Your task to perform on an android device: turn on location history Image 0: 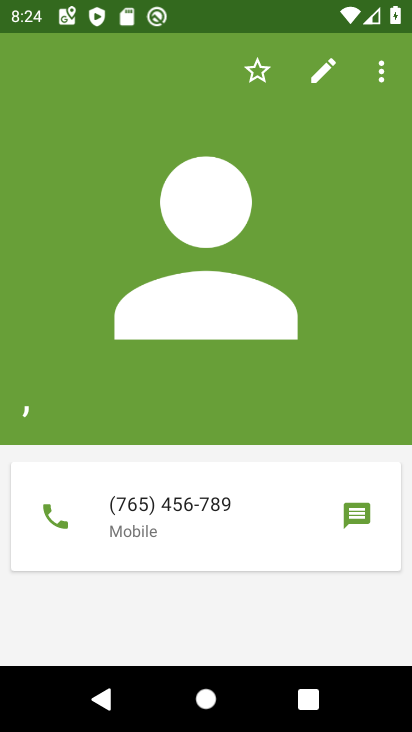
Step 0: press home button
Your task to perform on an android device: turn on location history Image 1: 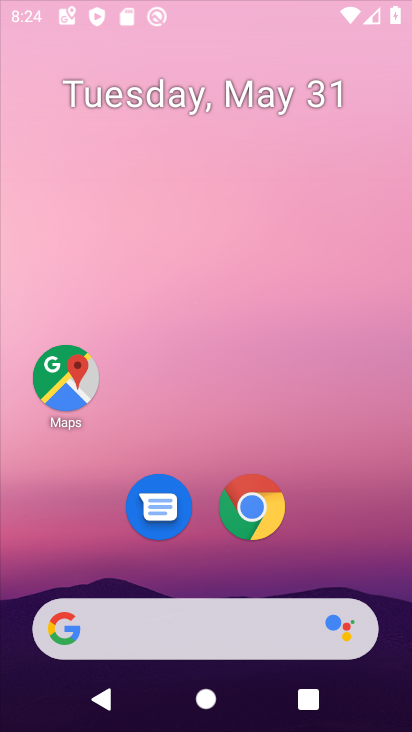
Step 1: drag from (246, 568) to (176, 107)
Your task to perform on an android device: turn on location history Image 2: 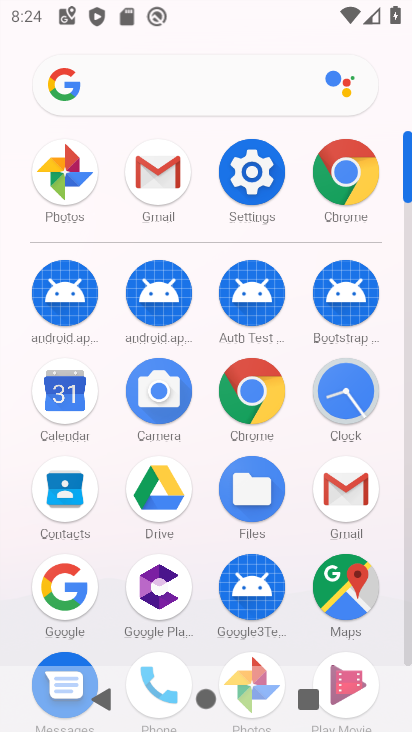
Step 2: click (257, 178)
Your task to perform on an android device: turn on location history Image 3: 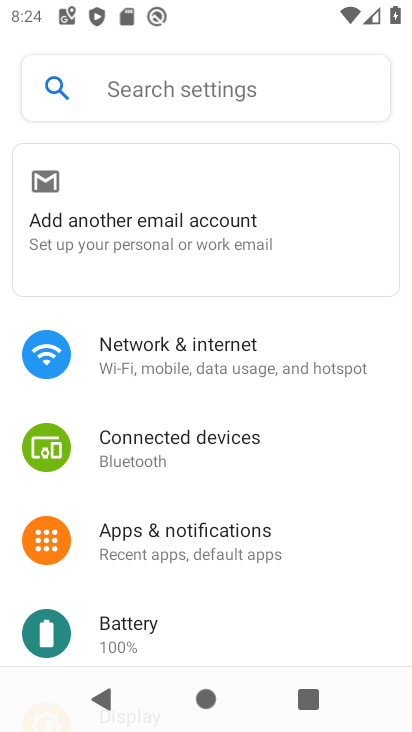
Step 3: drag from (294, 563) to (218, 43)
Your task to perform on an android device: turn on location history Image 4: 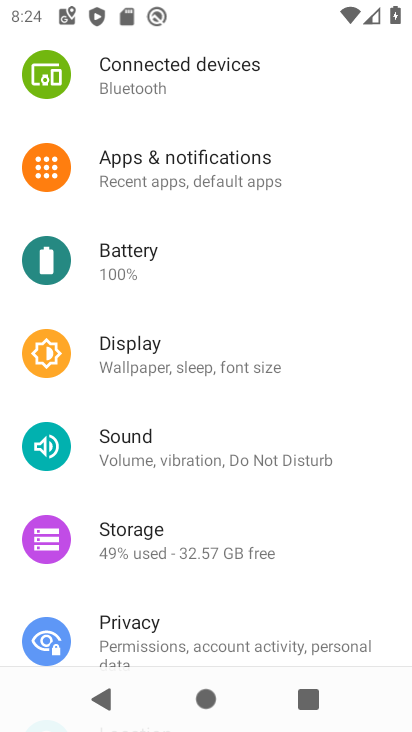
Step 4: drag from (262, 487) to (182, 159)
Your task to perform on an android device: turn on location history Image 5: 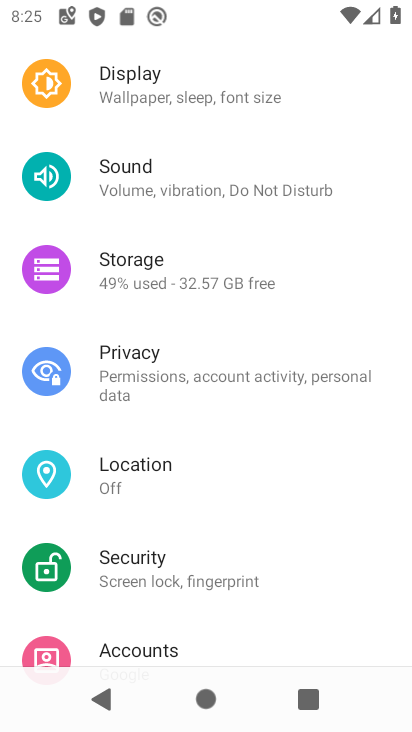
Step 5: click (156, 474)
Your task to perform on an android device: turn on location history Image 6: 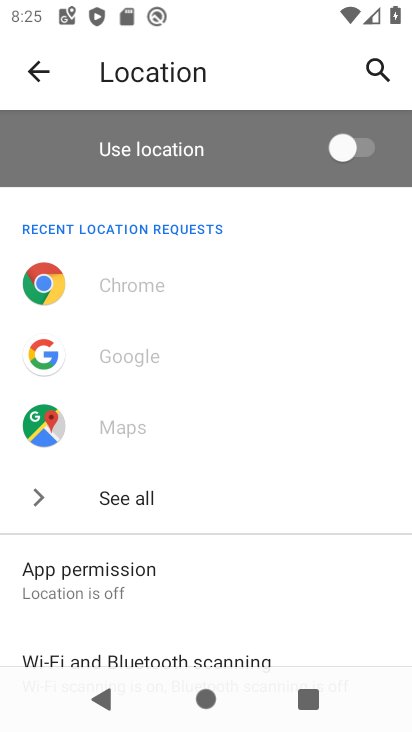
Step 6: drag from (226, 591) to (196, 296)
Your task to perform on an android device: turn on location history Image 7: 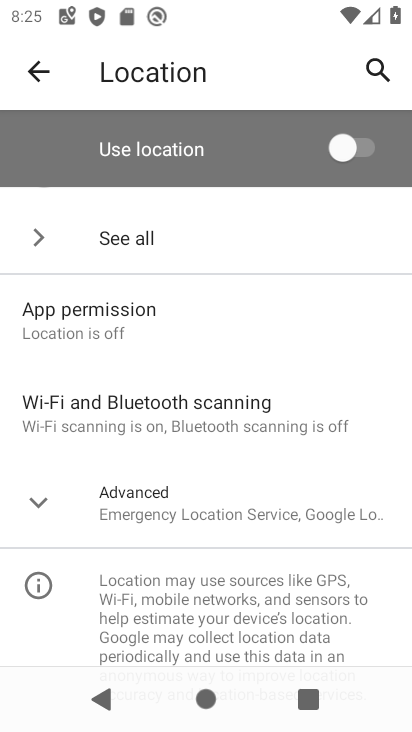
Step 7: click (198, 526)
Your task to perform on an android device: turn on location history Image 8: 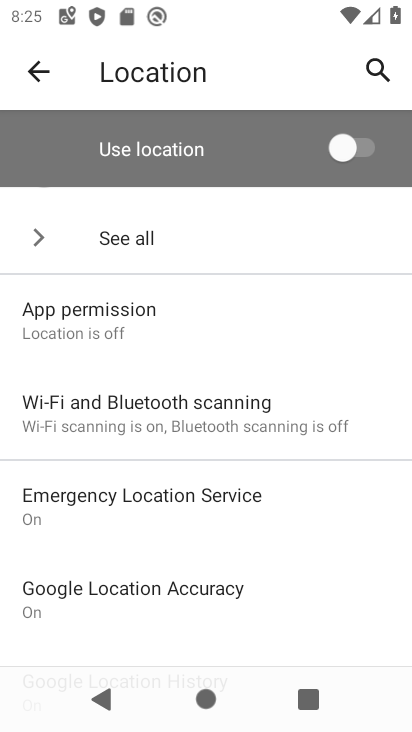
Step 8: drag from (305, 592) to (235, 298)
Your task to perform on an android device: turn on location history Image 9: 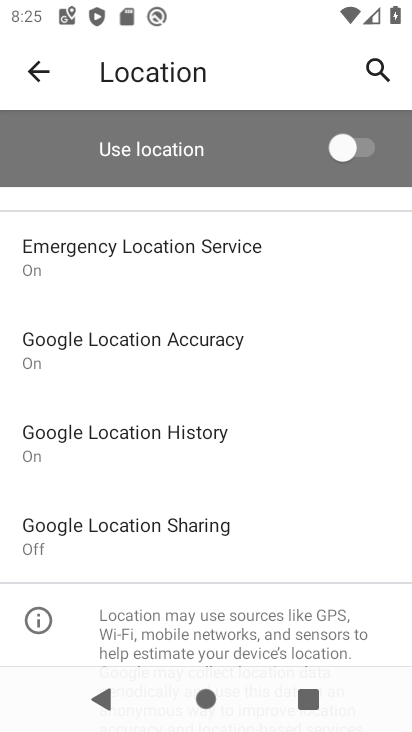
Step 9: click (185, 433)
Your task to perform on an android device: turn on location history Image 10: 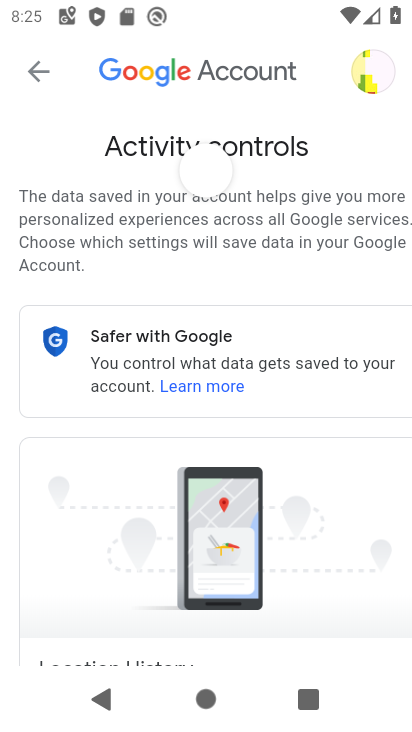
Step 10: drag from (294, 441) to (170, 114)
Your task to perform on an android device: turn on location history Image 11: 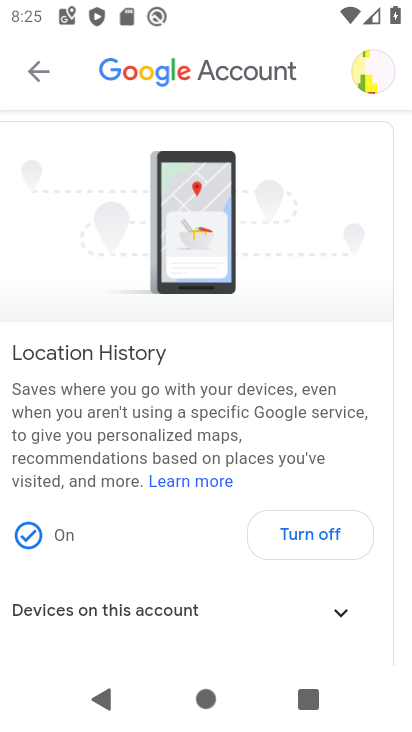
Step 11: click (293, 521)
Your task to perform on an android device: turn on location history Image 12: 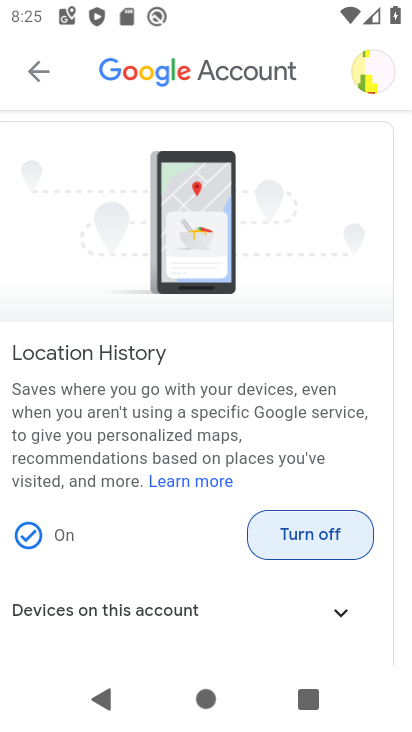
Step 12: click (286, 532)
Your task to perform on an android device: turn on location history Image 13: 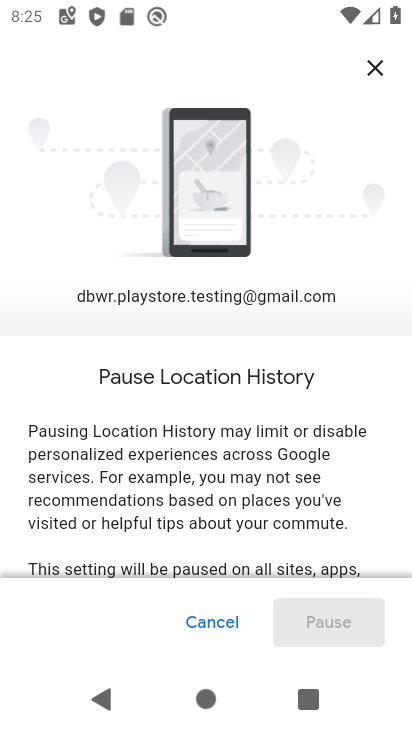
Step 13: drag from (267, 505) to (199, 189)
Your task to perform on an android device: turn on location history Image 14: 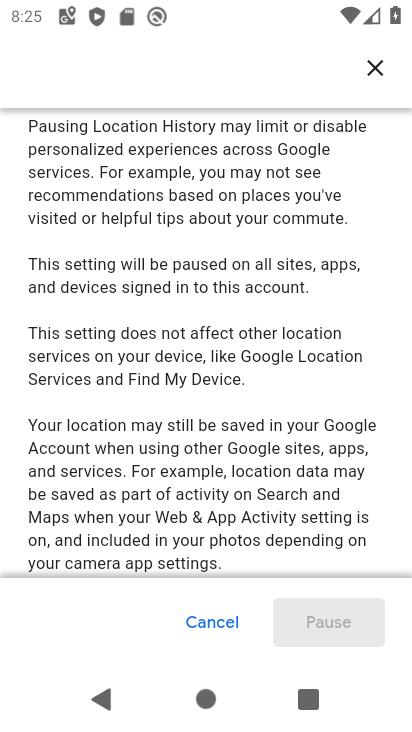
Step 14: drag from (139, 498) to (146, 360)
Your task to perform on an android device: turn on location history Image 15: 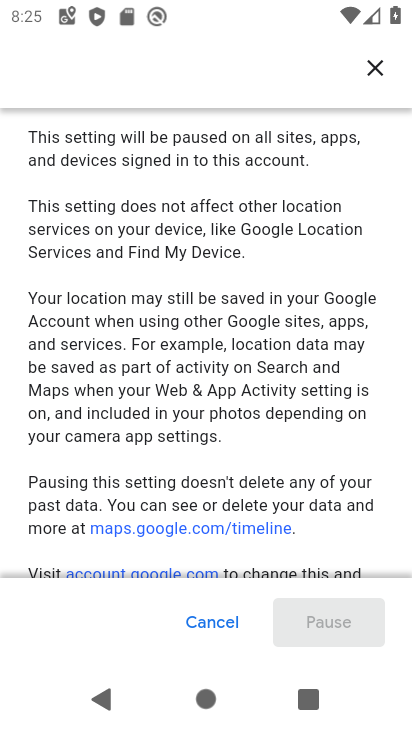
Step 15: click (165, 207)
Your task to perform on an android device: turn on location history Image 16: 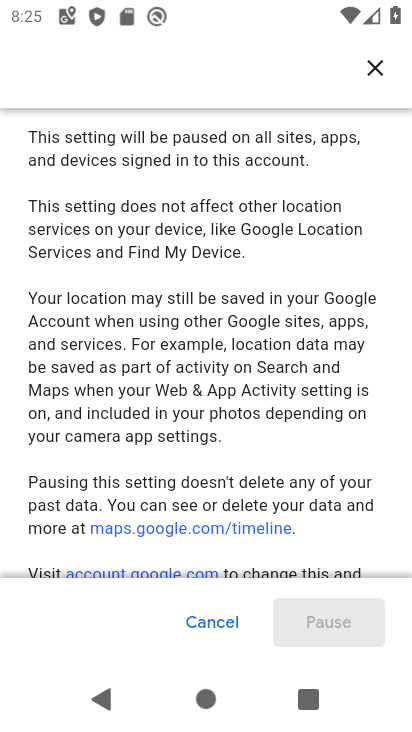
Step 16: drag from (212, 378) to (181, 188)
Your task to perform on an android device: turn on location history Image 17: 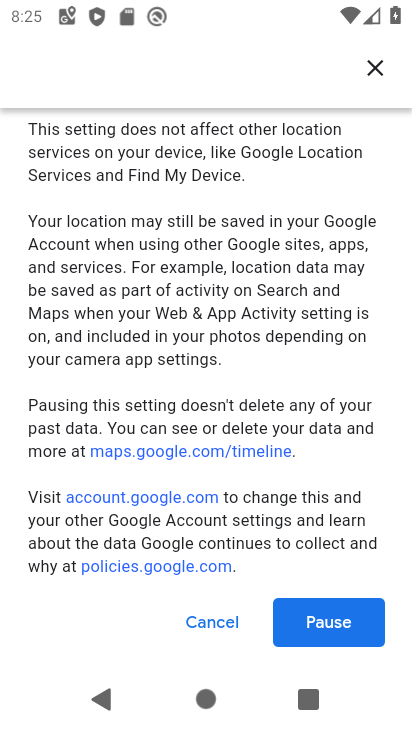
Step 17: click (345, 627)
Your task to perform on an android device: turn on location history Image 18: 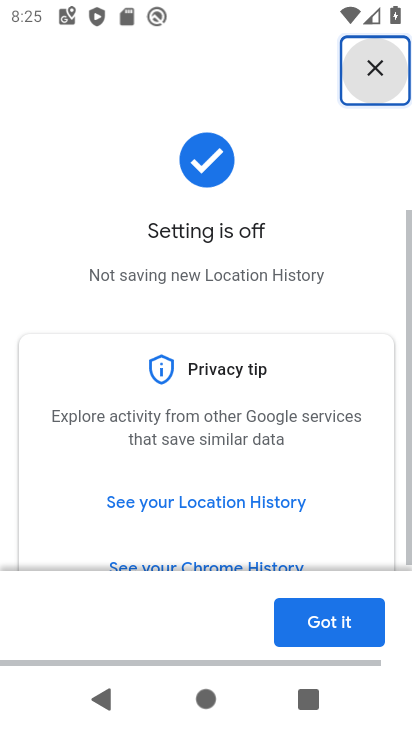
Step 18: click (337, 624)
Your task to perform on an android device: turn on location history Image 19: 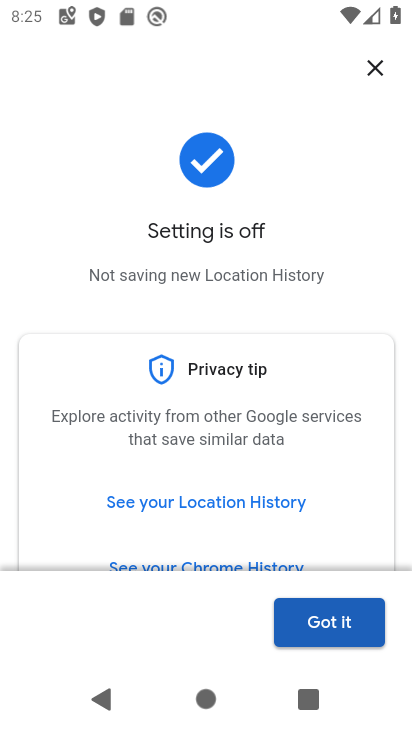
Step 19: task complete